Your task to perform on an android device: What's the weather? Image 0: 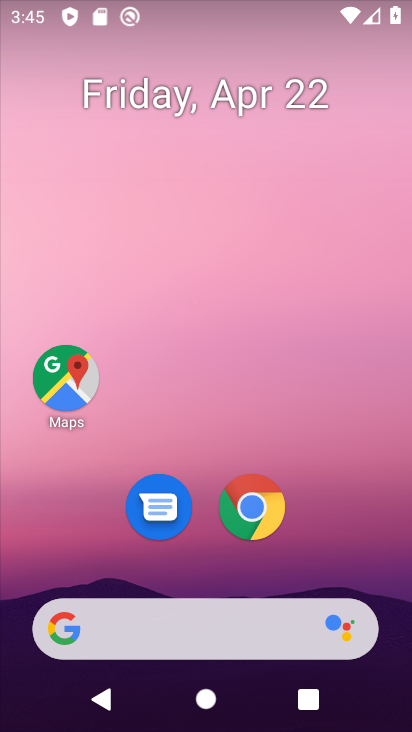
Step 0: click (221, 626)
Your task to perform on an android device: What's the weather? Image 1: 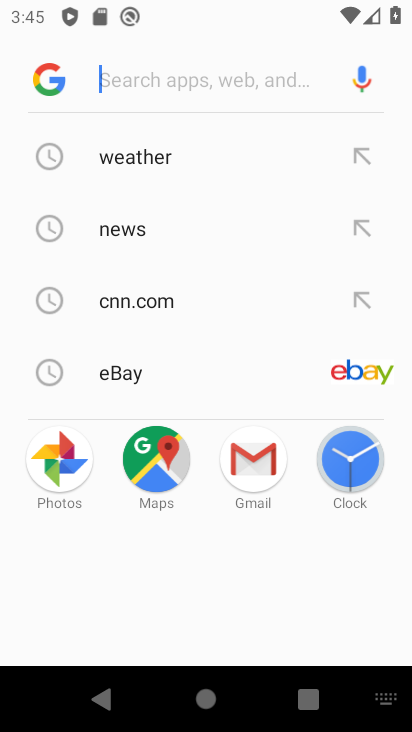
Step 1: click (148, 158)
Your task to perform on an android device: What's the weather? Image 2: 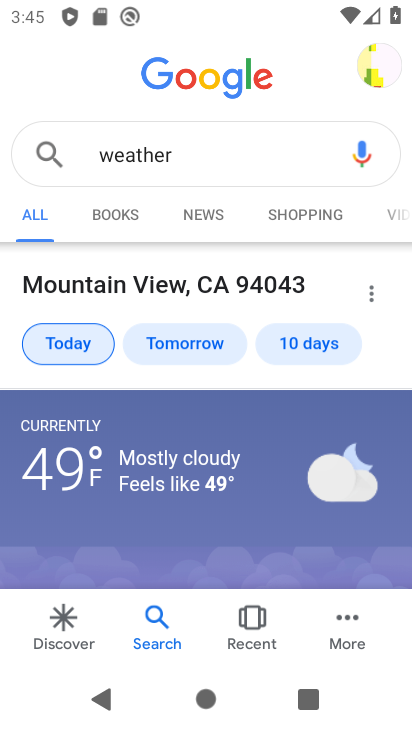
Step 2: task complete